Your task to perform on an android device: check the backup settings in the google photos Image 0: 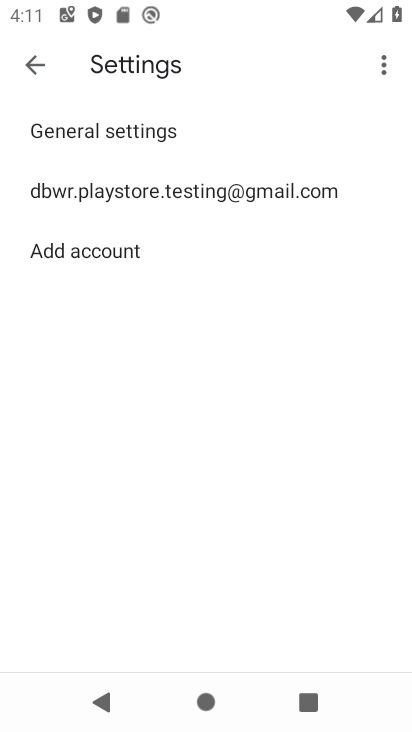
Step 0: press back button
Your task to perform on an android device: check the backup settings in the google photos Image 1: 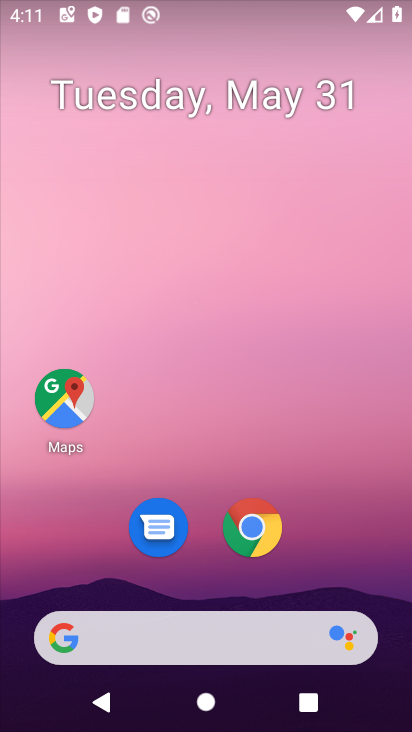
Step 1: drag from (369, 561) to (269, 54)
Your task to perform on an android device: check the backup settings in the google photos Image 2: 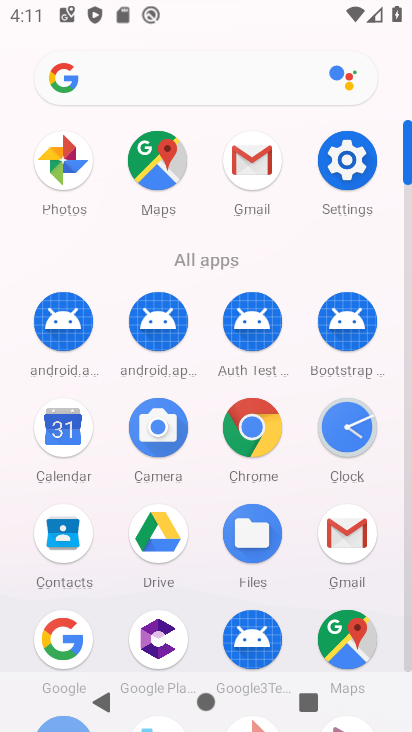
Step 2: drag from (11, 576) to (11, 209)
Your task to perform on an android device: check the backup settings in the google photos Image 3: 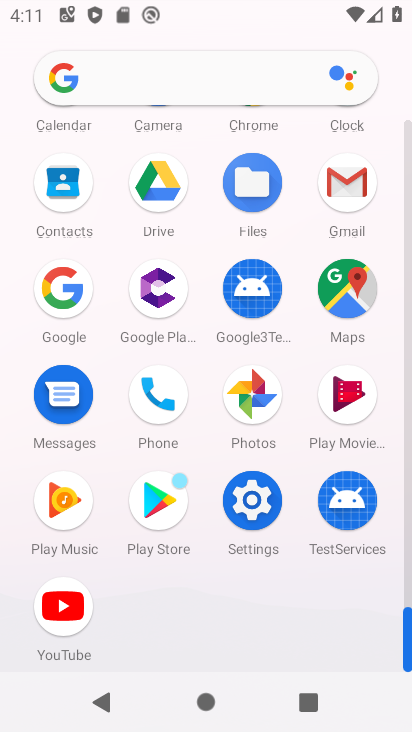
Step 3: click (248, 389)
Your task to perform on an android device: check the backup settings in the google photos Image 4: 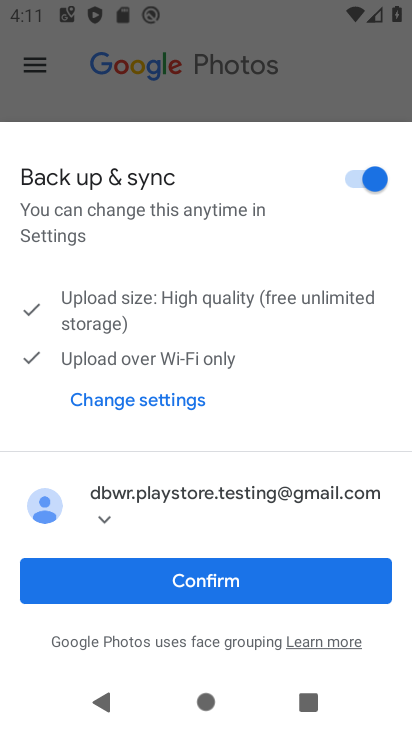
Step 4: click (238, 571)
Your task to perform on an android device: check the backup settings in the google photos Image 5: 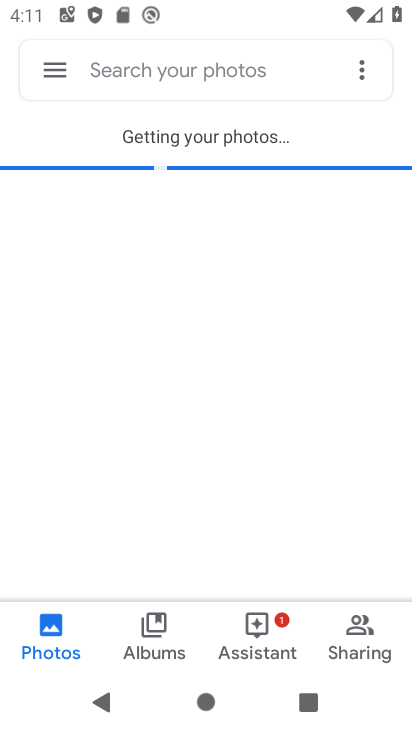
Step 5: click (48, 62)
Your task to perform on an android device: check the backup settings in the google photos Image 6: 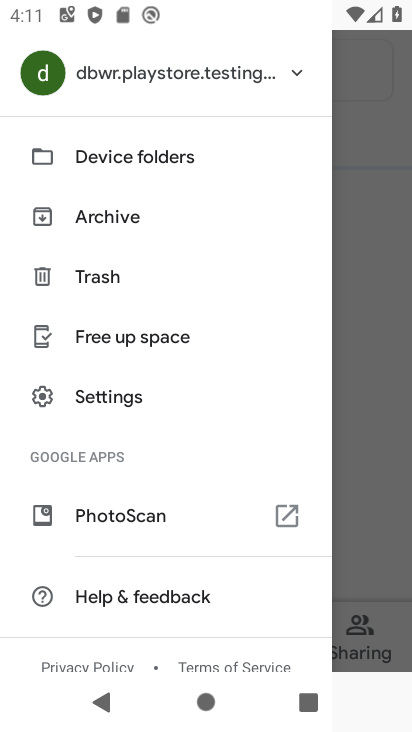
Step 6: click (128, 391)
Your task to perform on an android device: check the backup settings in the google photos Image 7: 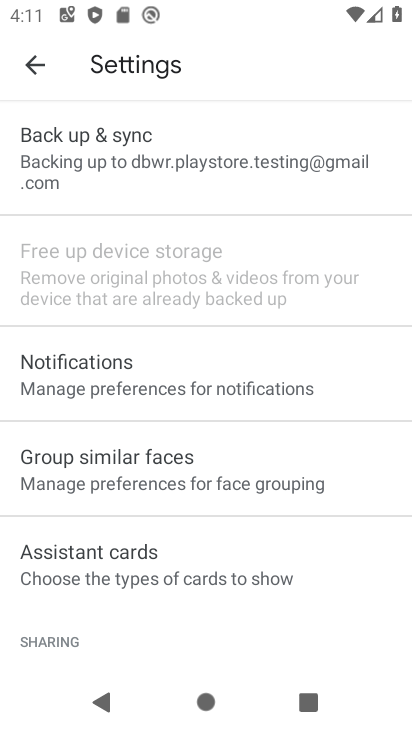
Step 7: drag from (279, 503) to (309, 83)
Your task to perform on an android device: check the backup settings in the google photos Image 8: 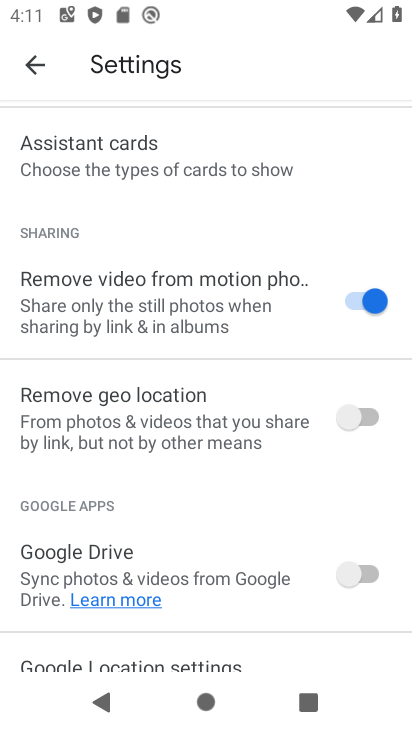
Step 8: drag from (177, 609) to (243, 192)
Your task to perform on an android device: check the backup settings in the google photos Image 9: 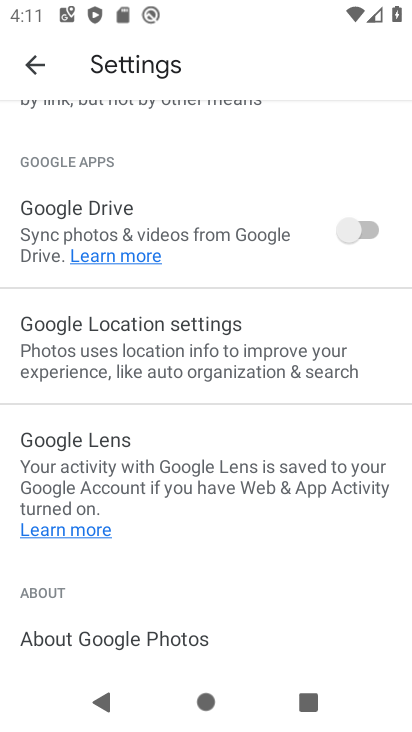
Step 9: drag from (222, 528) to (243, 171)
Your task to perform on an android device: check the backup settings in the google photos Image 10: 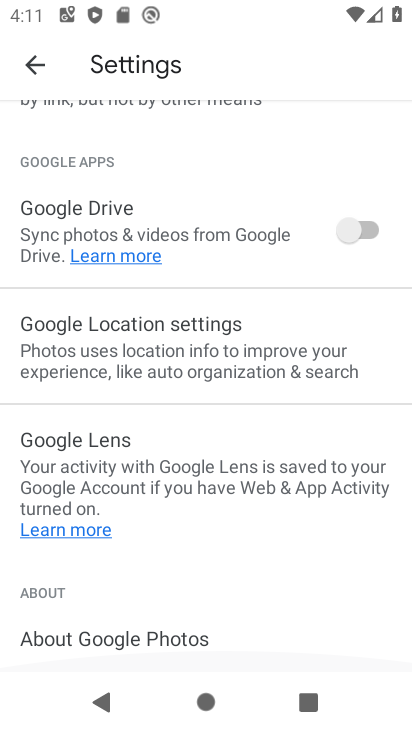
Step 10: click (245, 611)
Your task to perform on an android device: check the backup settings in the google photos Image 11: 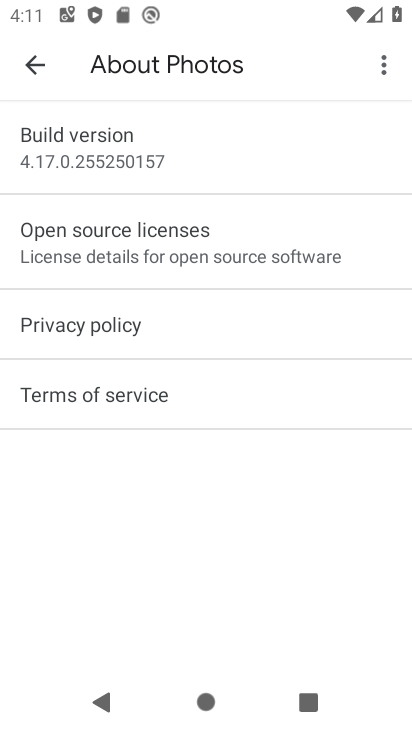
Step 11: click (37, 51)
Your task to perform on an android device: check the backup settings in the google photos Image 12: 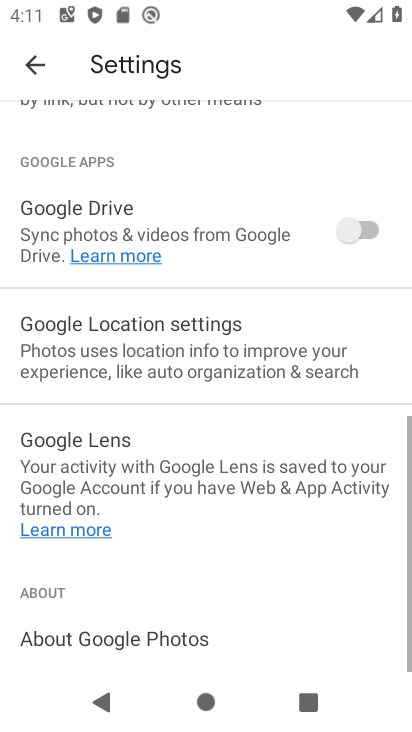
Step 12: drag from (228, 150) to (237, 529)
Your task to perform on an android device: check the backup settings in the google photos Image 13: 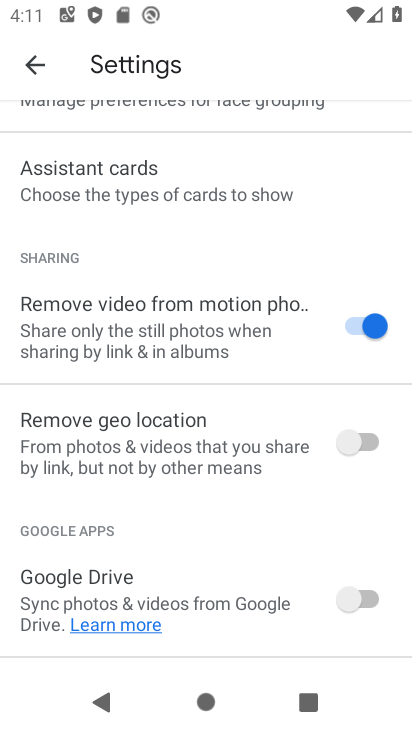
Step 13: drag from (194, 171) to (208, 599)
Your task to perform on an android device: check the backup settings in the google photos Image 14: 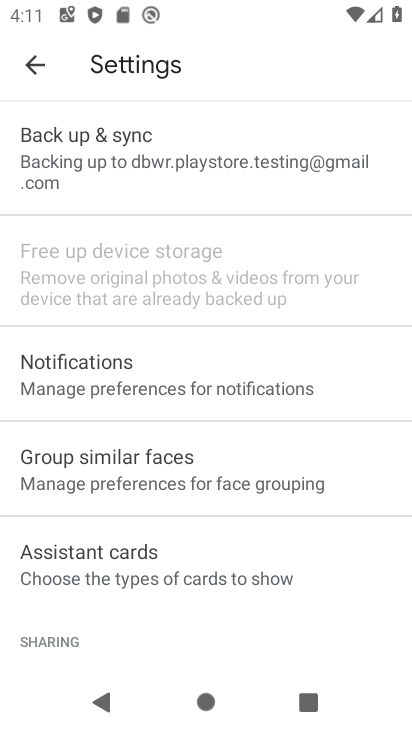
Step 14: click (211, 166)
Your task to perform on an android device: check the backup settings in the google photos Image 15: 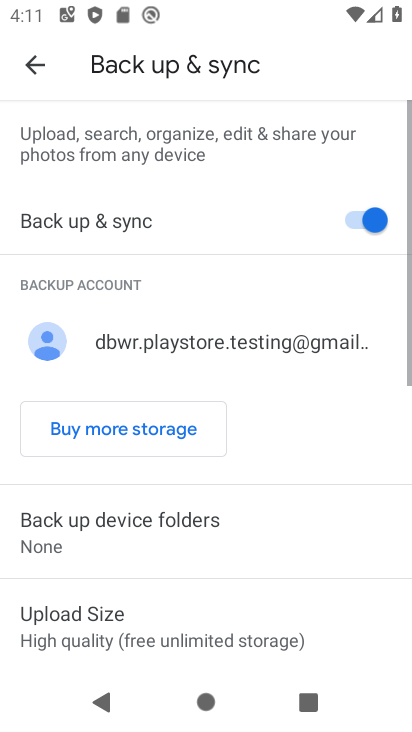
Step 15: task complete